Your task to perform on an android device: toggle translation in the chrome app Image 0: 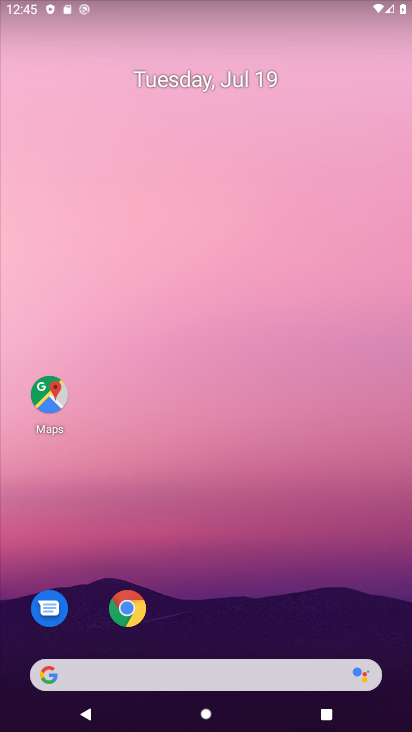
Step 0: drag from (297, 573) to (274, 48)
Your task to perform on an android device: toggle translation in the chrome app Image 1: 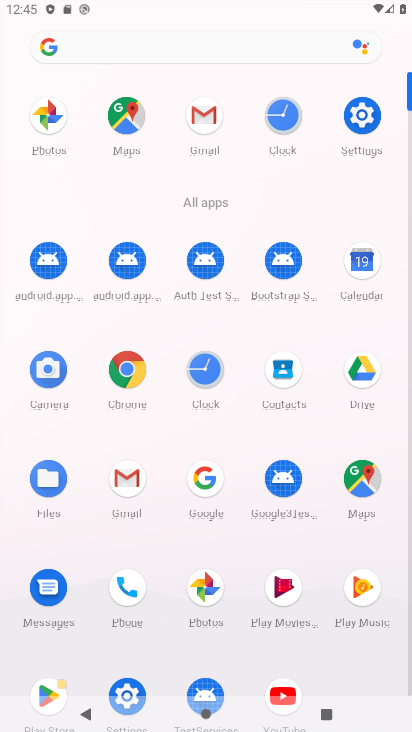
Step 1: click (133, 375)
Your task to perform on an android device: toggle translation in the chrome app Image 2: 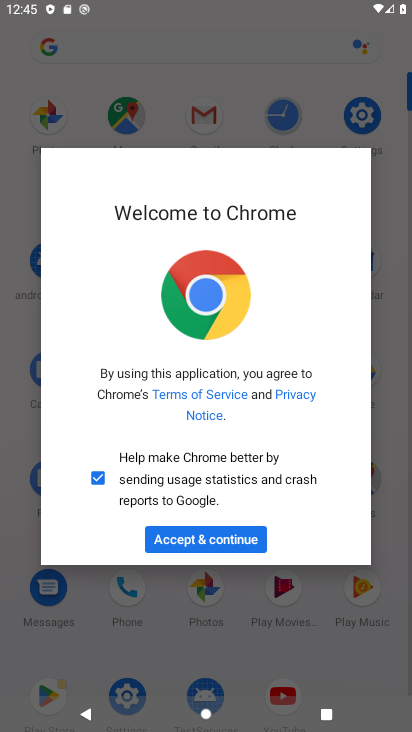
Step 2: click (207, 547)
Your task to perform on an android device: toggle translation in the chrome app Image 3: 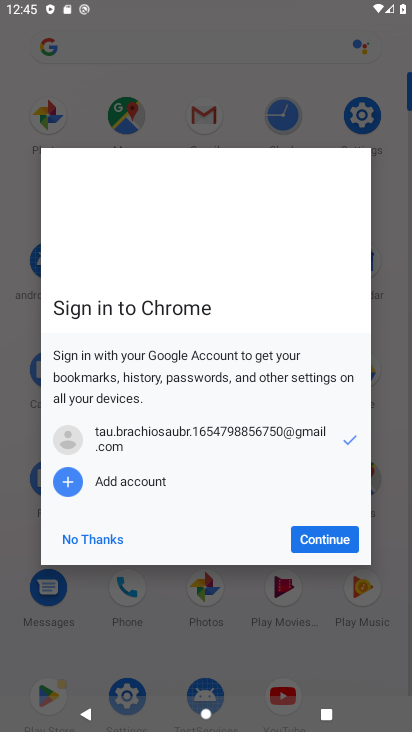
Step 3: click (93, 538)
Your task to perform on an android device: toggle translation in the chrome app Image 4: 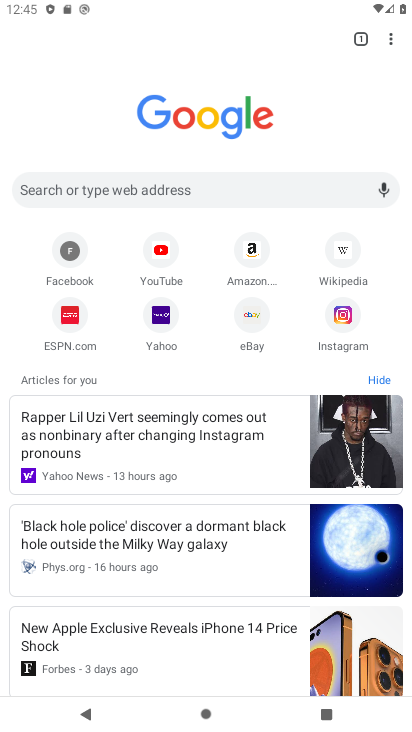
Step 4: drag from (387, 45) to (265, 334)
Your task to perform on an android device: toggle translation in the chrome app Image 5: 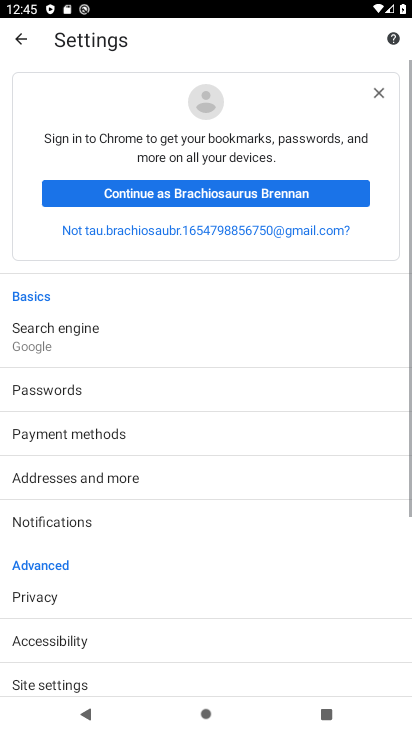
Step 5: drag from (111, 598) to (195, 161)
Your task to perform on an android device: toggle translation in the chrome app Image 6: 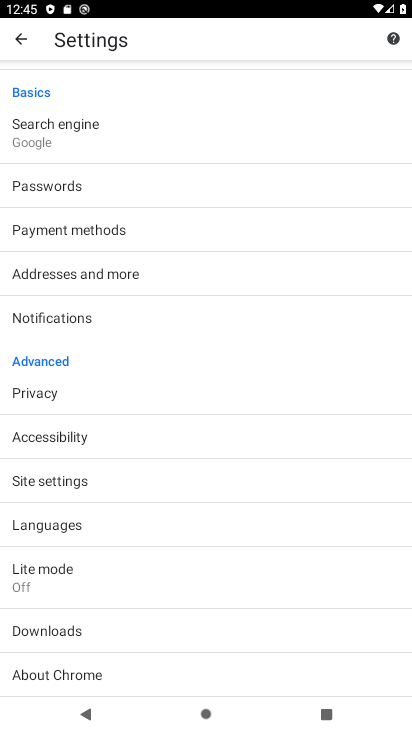
Step 6: click (57, 526)
Your task to perform on an android device: toggle translation in the chrome app Image 7: 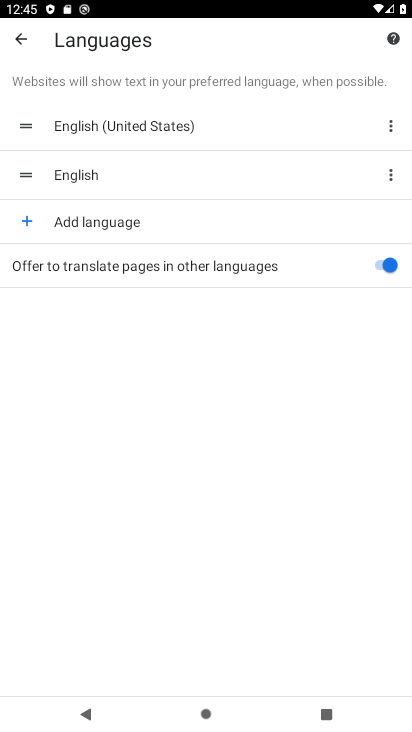
Step 7: click (378, 263)
Your task to perform on an android device: toggle translation in the chrome app Image 8: 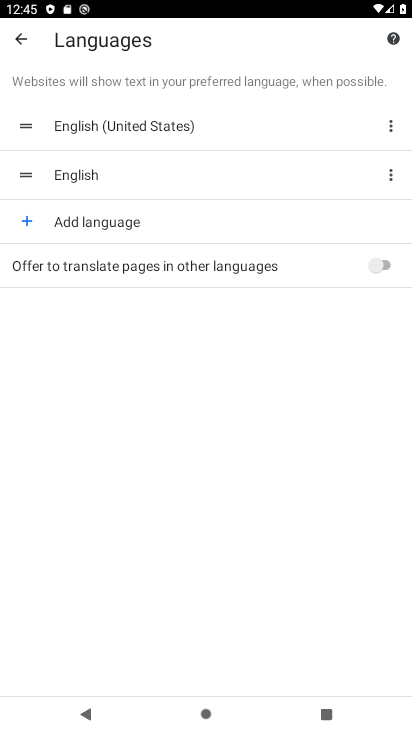
Step 8: task complete